Your task to perform on an android device: Clear all items from cart on ebay.com. Search for "corsair k70" on ebay.com, select the first entry, and add it to the cart. Image 0: 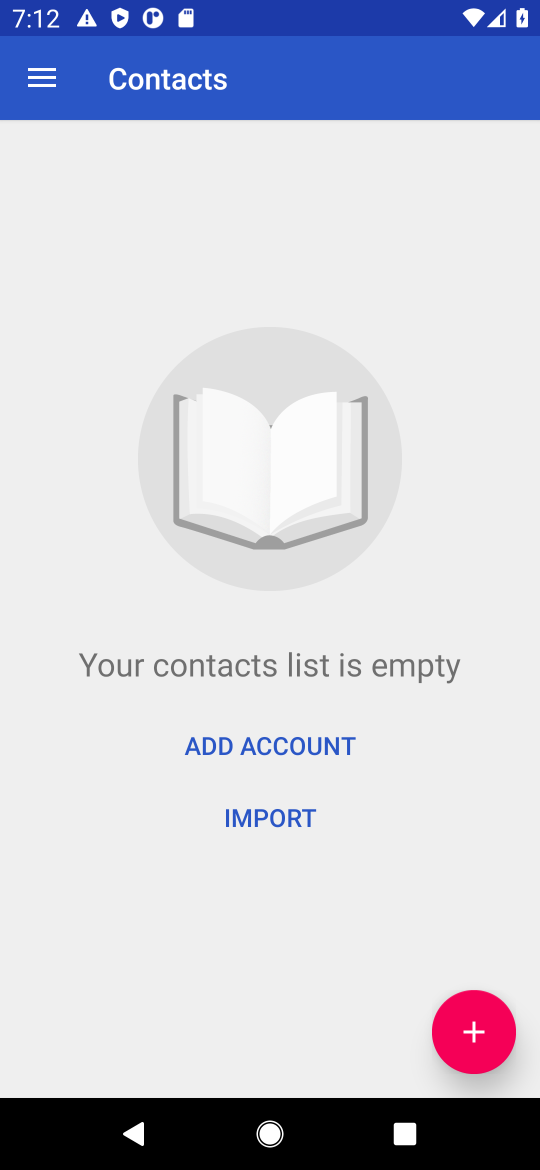
Step 0: press home button
Your task to perform on an android device: Clear all items from cart on ebay.com. Search for "corsair k70" on ebay.com, select the first entry, and add it to the cart. Image 1: 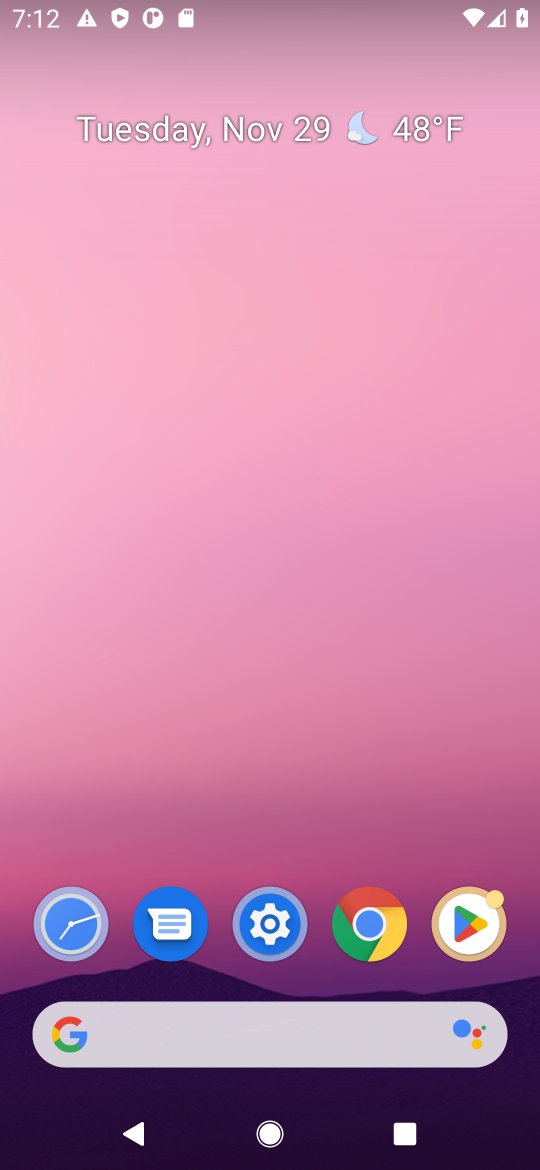
Step 1: click (227, 1046)
Your task to perform on an android device: Clear all items from cart on ebay.com. Search for "corsair k70" on ebay.com, select the first entry, and add it to the cart. Image 2: 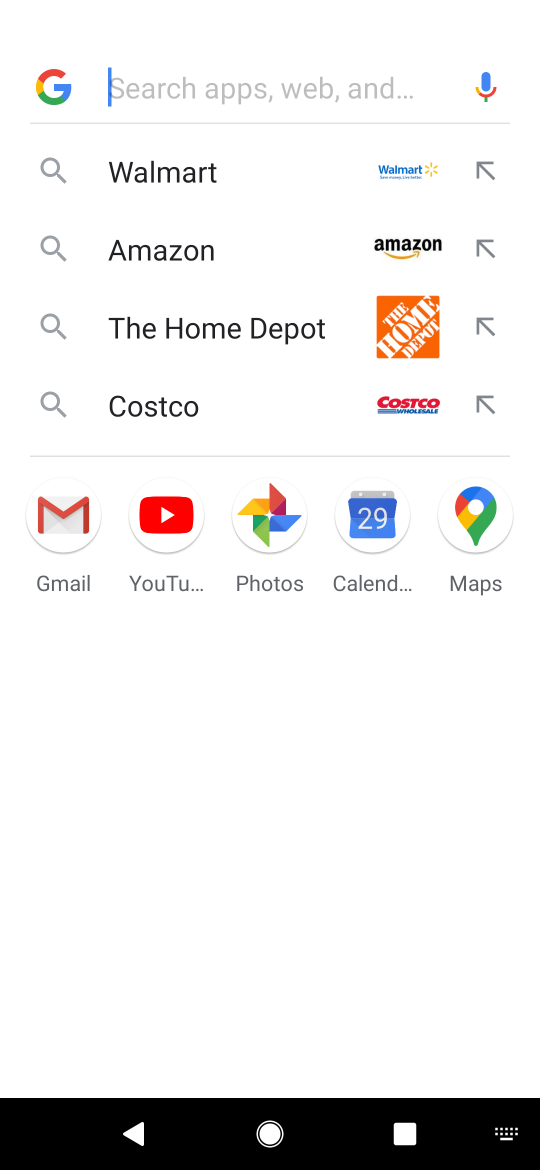
Step 2: type "ebay.com"
Your task to perform on an android device: Clear all items from cart on ebay.com. Search for "corsair k70" on ebay.com, select the first entry, and add it to the cart. Image 3: 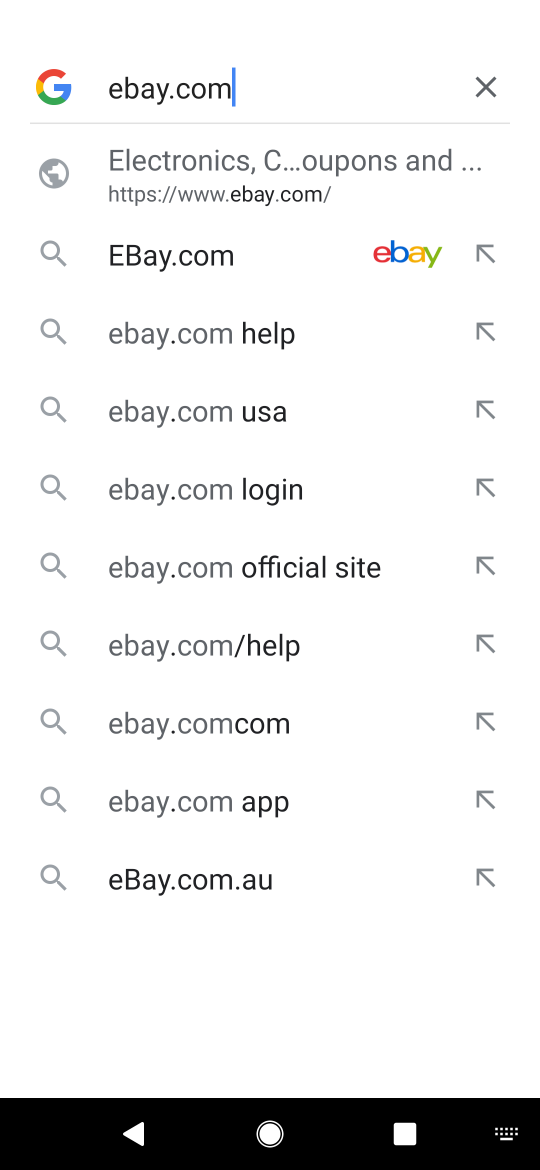
Step 3: click (160, 204)
Your task to perform on an android device: Clear all items from cart on ebay.com. Search for "corsair k70" on ebay.com, select the first entry, and add it to the cart. Image 4: 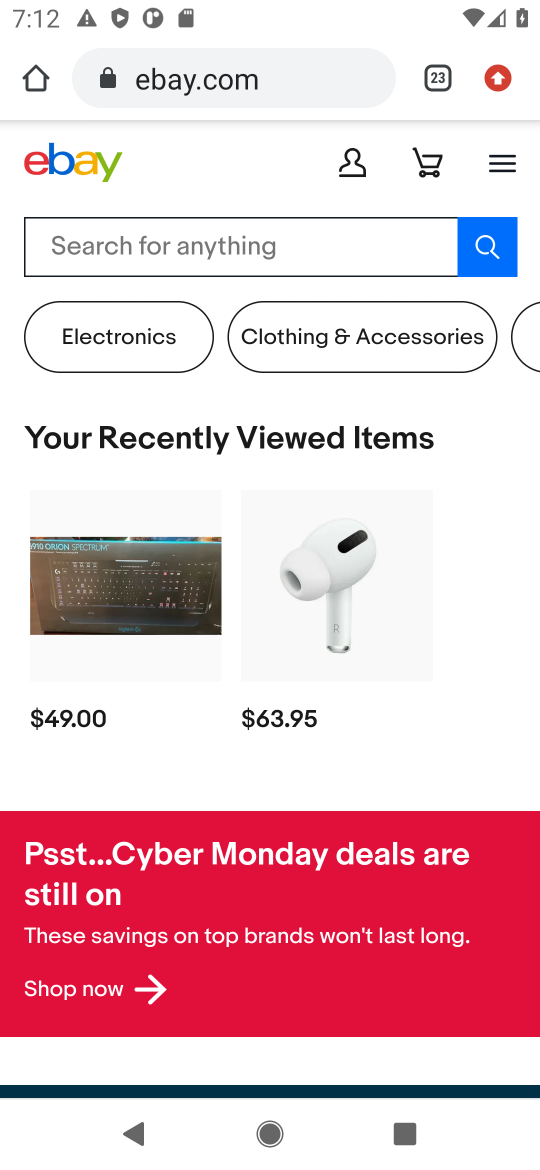
Step 4: click (172, 244)
Your task to perform on an android device: Clear all items from cart on ebay.com. Search for "corsair k70" on ebay.com, select the first entry, and add it to the cart. Image 5: 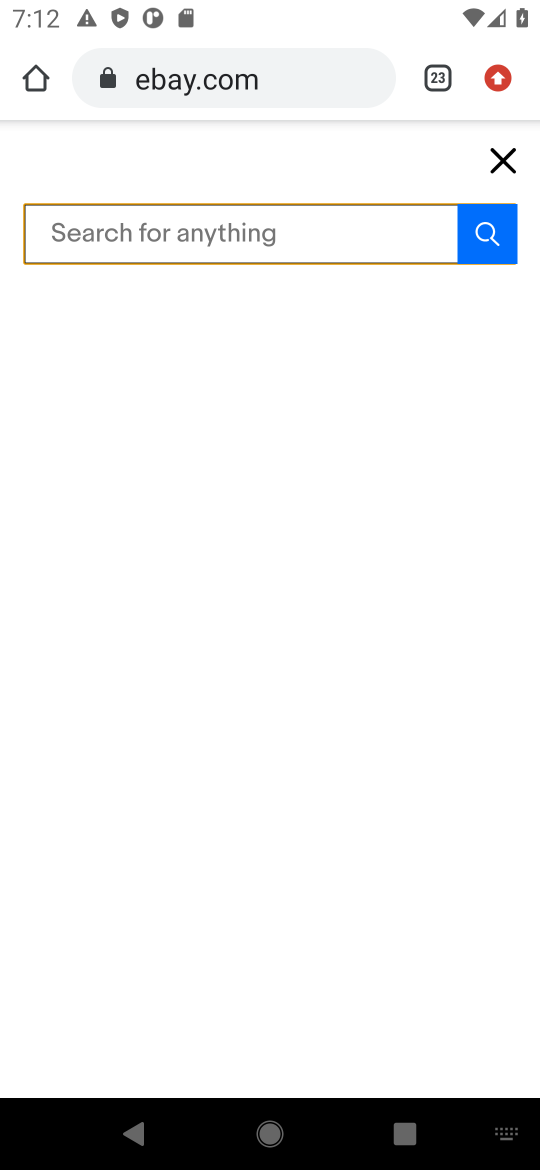
Step 5: type "corsair k70"
Your task to perform on an android device: Clear all items from cart on ebay.com. Search for "corsair k70" on ebay.com, select the first entry, and add it to the cart. Image 6: 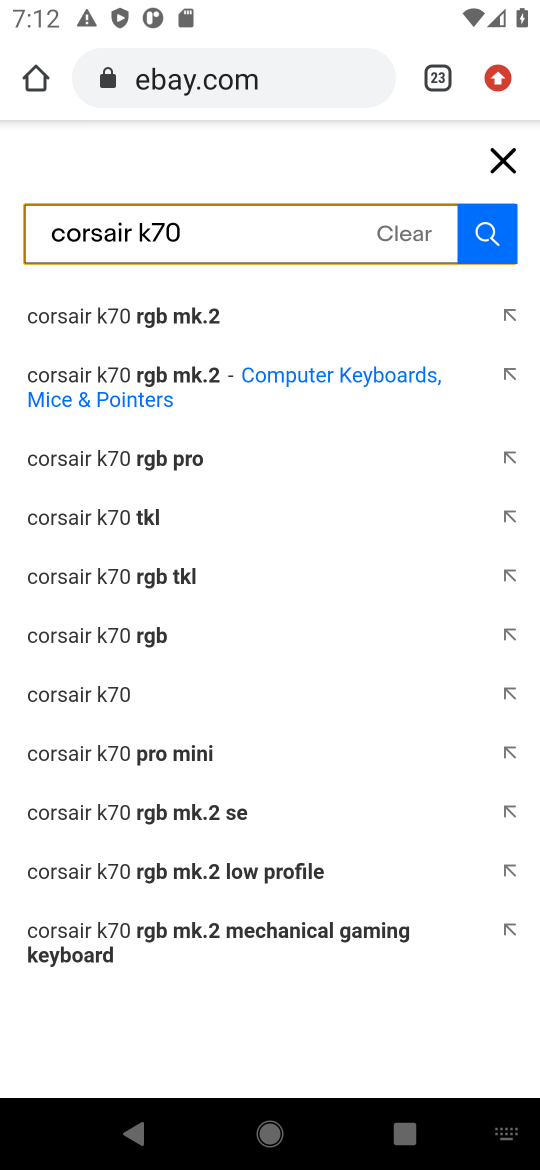
Step 6: click (506, 229)
Your task to perform on an android device: Clear all items from cart on ebay.com. Search for "corsair k70" on ebay.com, select the first entry, and add it to the cart. Image 7: 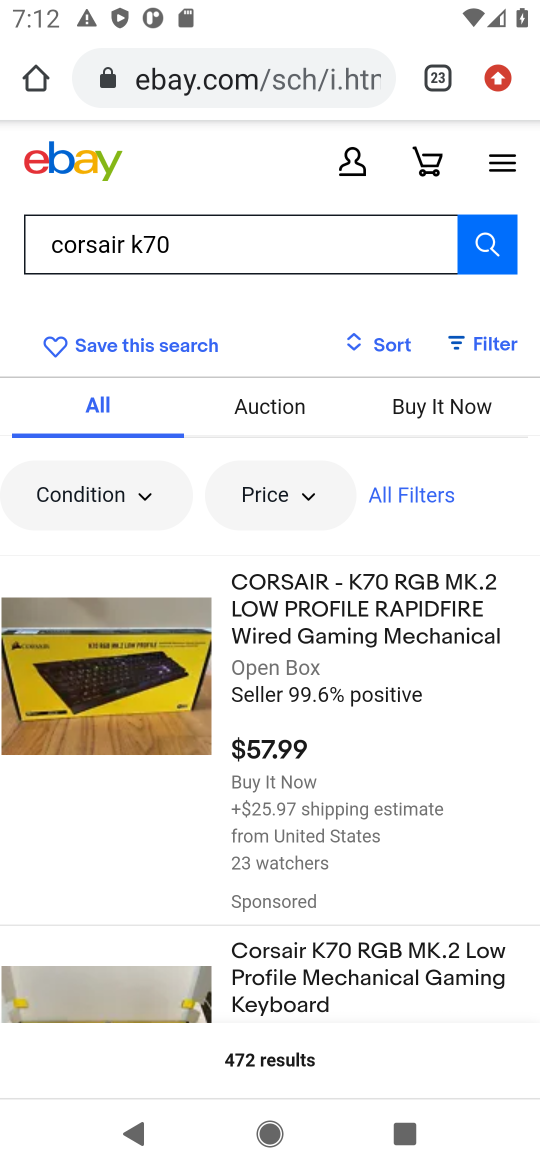
Step 7: click (266, 595)
Your task to perform on an android device: Clear all items from cart on ebay.com. Search for "corsair k70" on ebay.com, select the first entry, and add it to the cart. Image 8: 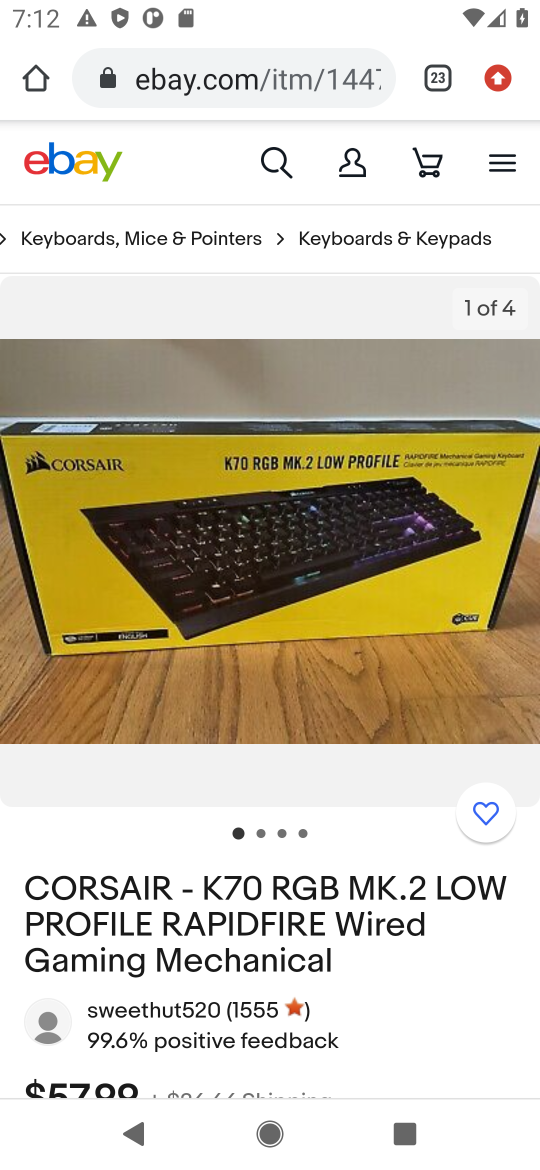
Step 8: drag from (445, 1066) to (196, 120)
Your task to perform on an android device: Clear all items from cart on ebay.com. Search for "corsair k70" on ebay.com, select the first entry, and add it to the cart. Image 9: 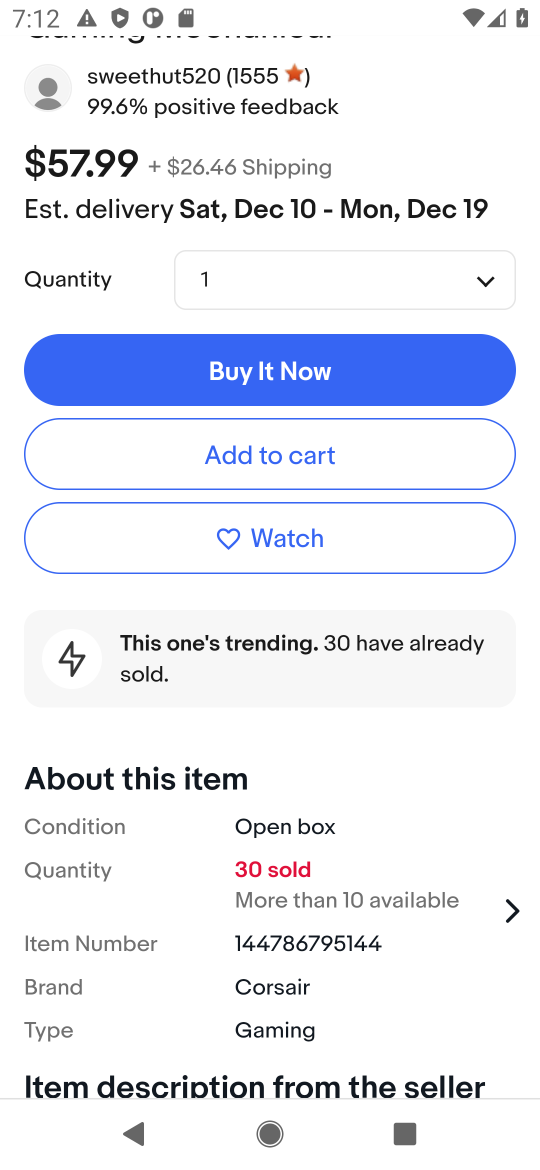
Step 9: click (275, 477)
Your task to perform on an android device: Clear all items from cart on ebay.com. Search for "corsair k70" on ebay.com, select the first entry, and add it to the cart. Image 10: 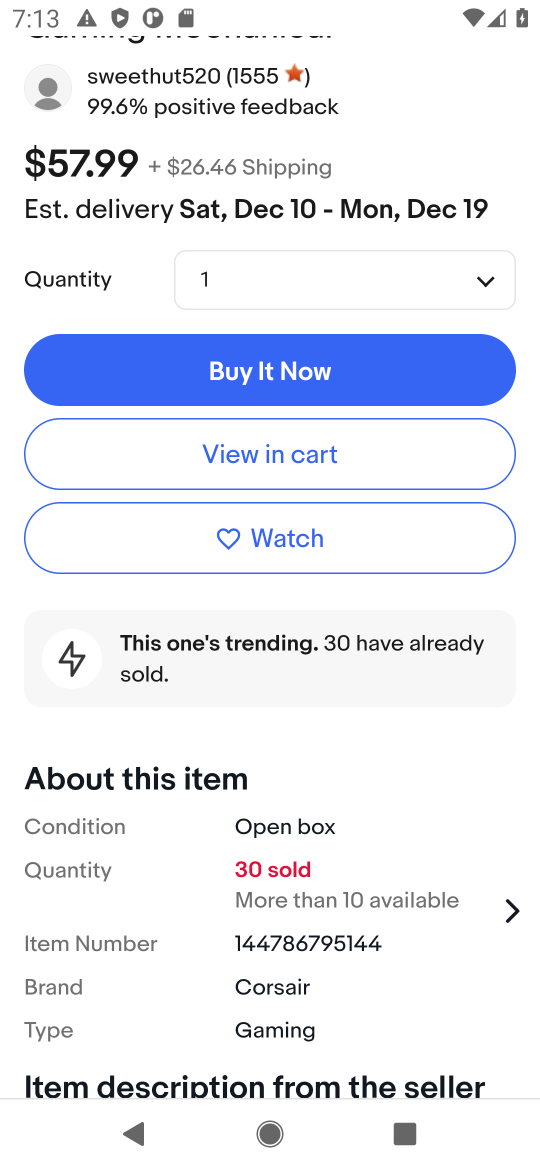
Step 10: task complete